Your task to perform on an android device: Go to battery settings Image 0: 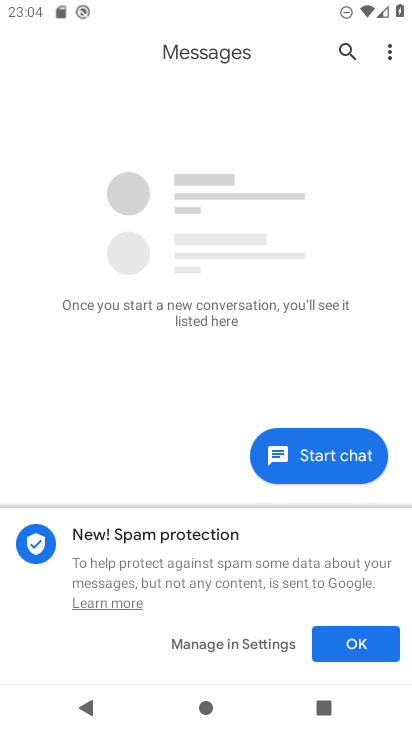
Step 0: press home button
Your task to perform on an android device: Go to battery settings Image 1: 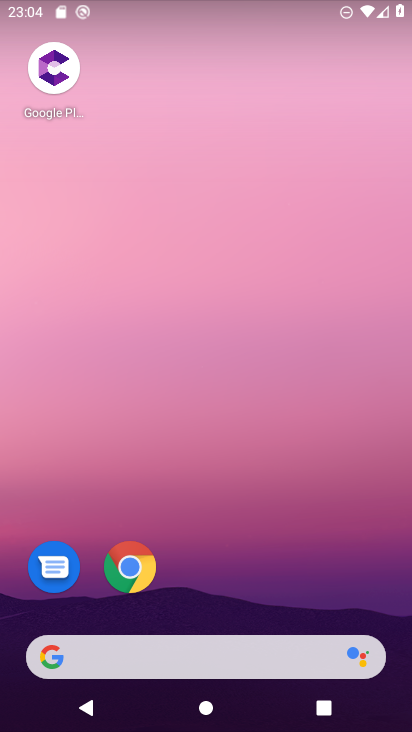
Step 1: drag from (319, 495) to (231, 46)
Your task to perform on an android device: Go to battery settings Image 2: 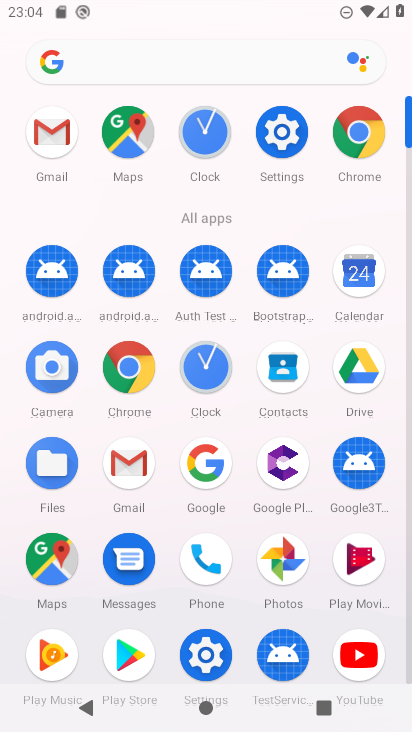
Step 2: click (283, 131)
Your task to perform on an android device: Go to battery settings Image 3: 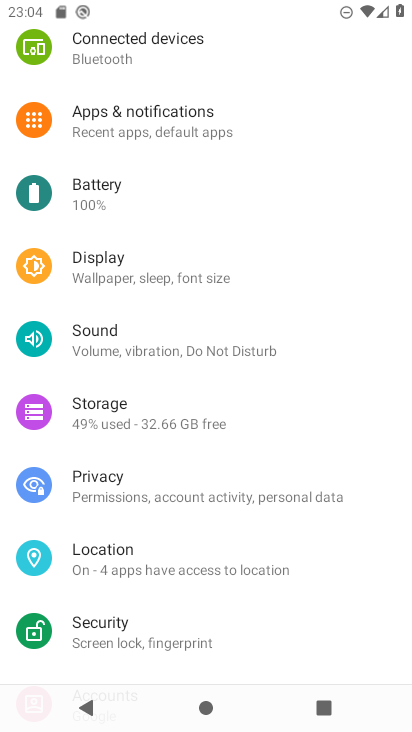
Step 3: click (179, 218)
Your task to perform on an android device: Go to battery settings Image 4: 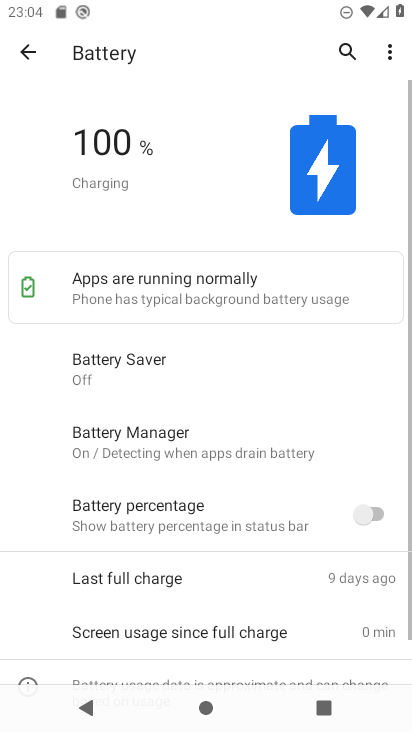
Step 4: task complete